Your task to perform on an android device: empty trash in the gmail app Image 0: 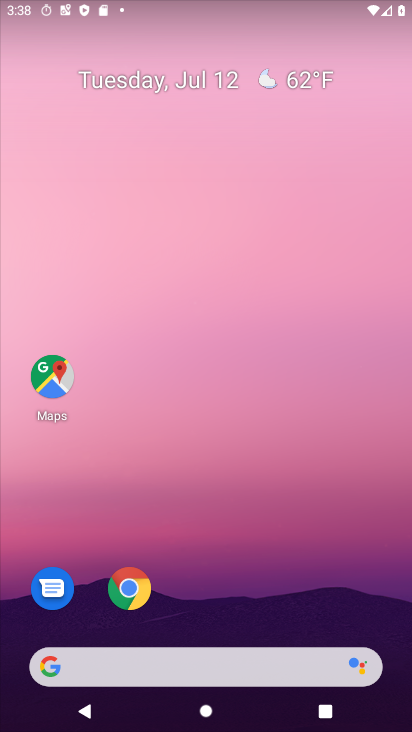
Step 0: drag from (214, 582) to (222, 57)
Your task to perform on an android device: empty trash in the gmail app Image 1: 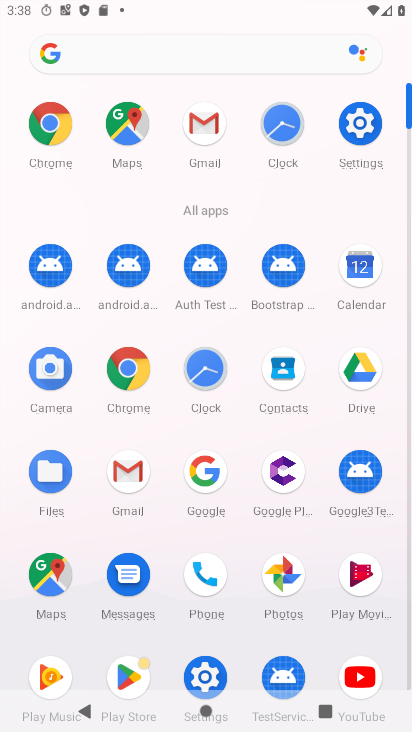
Step 1: click (133, 482)
Your task to perform on an android device: empty trash in the gmail app Image 2: 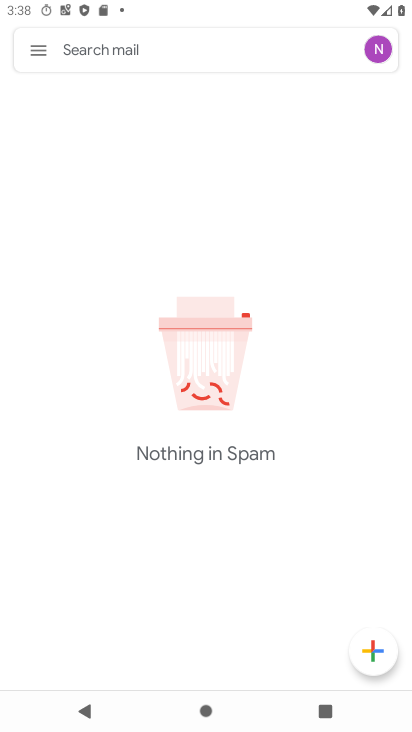
Step 2: click (36, 52)
Your task to perform on an android device: empty trash in the gmail app Image 3: 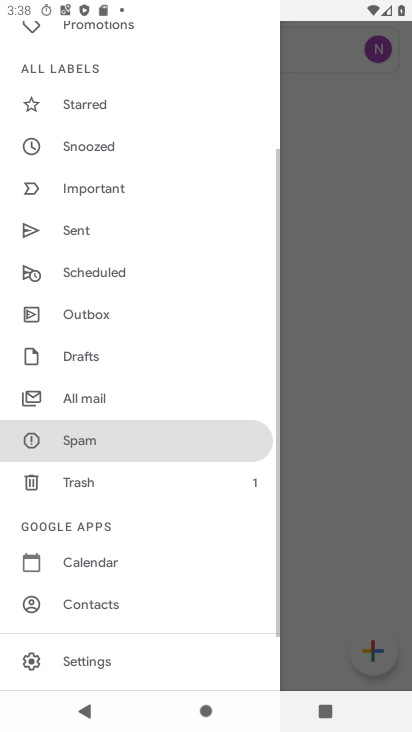
Step 3: click (115, 478)
Your task to perform on an android device: empty trash in the gmail app Image 4: 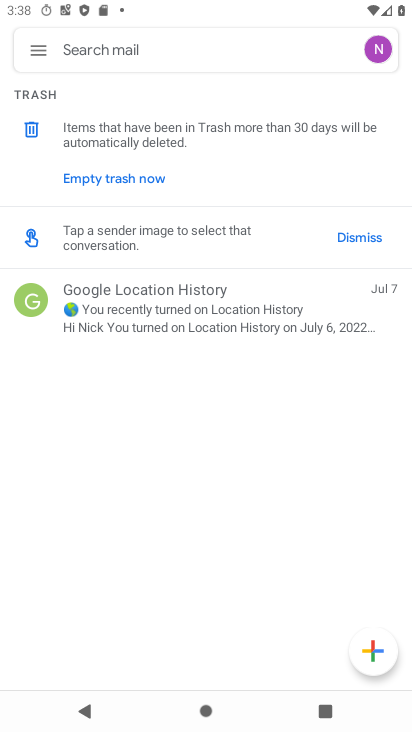
Step 4: click (109, 173)
Your task to perform on an android device: empty trash in the gmail app Image 5: 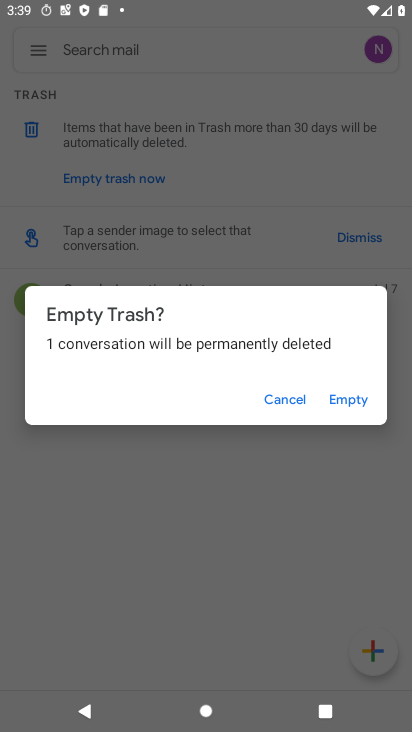
Step 5: click (371, 400)
Your task to perform on an android device: empty trash in the gmail app Image 6: 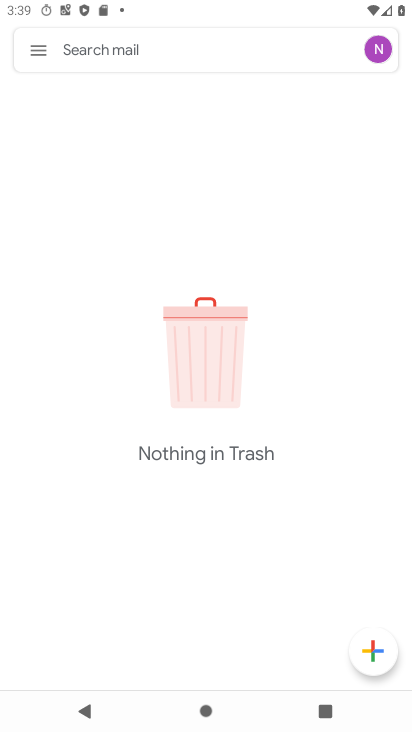
Step 6: task complete